Your task to perform on an android device: turn off priority inbox in the gmail app Image 0: 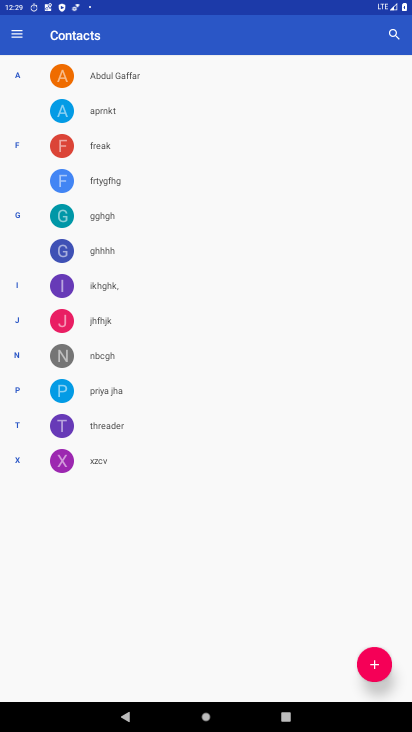
Step 0: press home button
Your task to perform on an android device: turn off priority inbox in the gmail app Image 1: 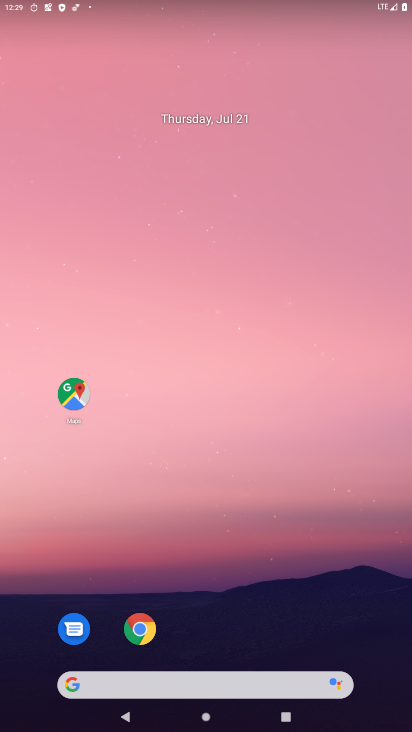
Step 1: drag from (174, 685) to (139, 166)
Your task to perform on an android device: turn off priority inbox in the gmail app Image 2: 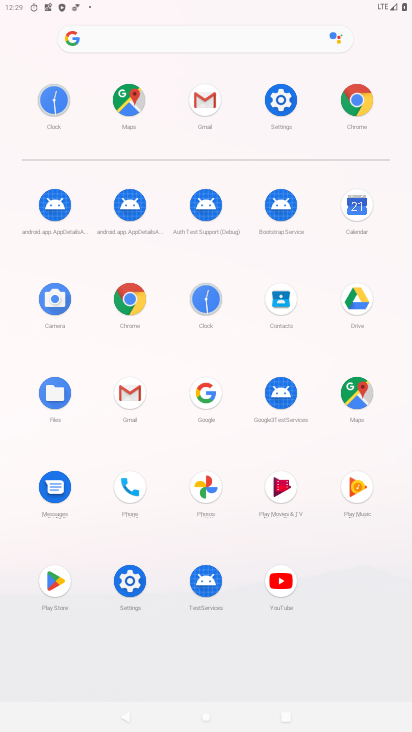
Step 2: click (140, 389)
Your task to perform on an android device: turn off priority inbox in the gmail app Image 3: 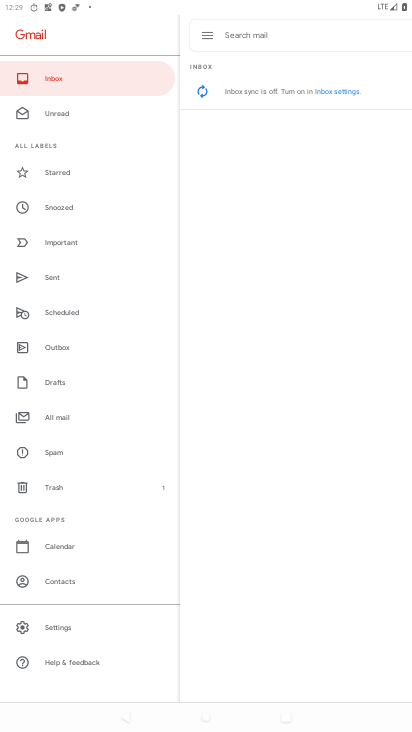
Step 3: click (43, 625)
Your task to perform on an android device: turn off priority inbox in the gmail app Image 4: 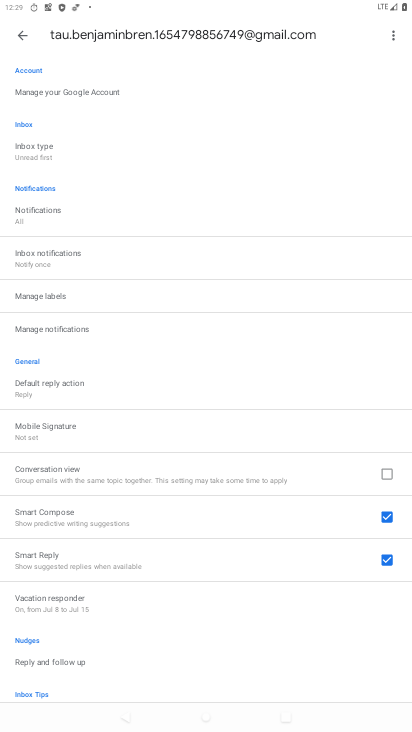
Step 4: click (43, 147)
Your task to perform on an android device: turn off priority inbox in the gmail app Image 5: 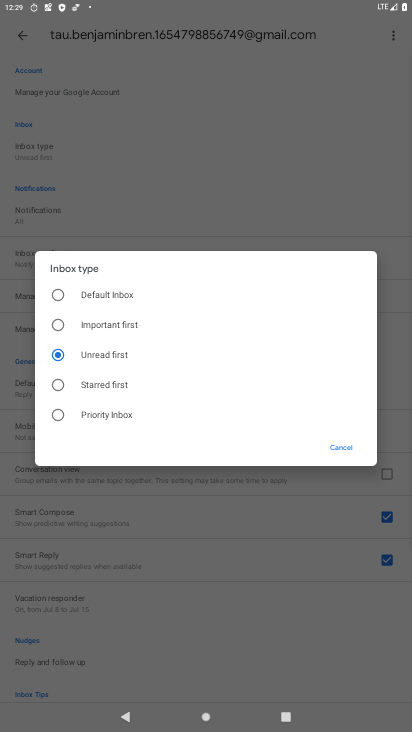
Step 5: click (67, 293)
Your task to perform on an android device: turn off priority inbox in the gmail app Image 6: 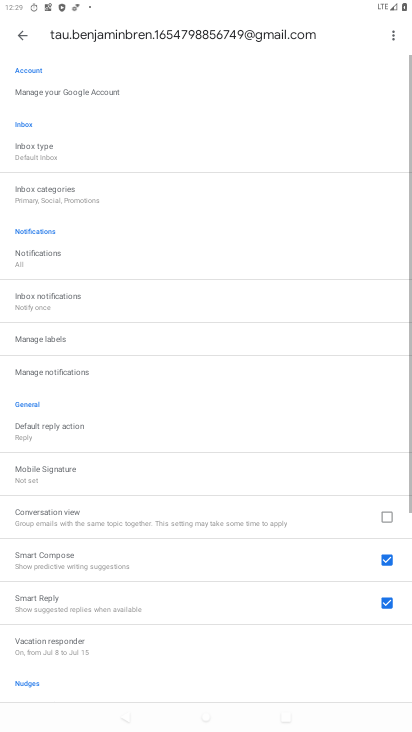
Step 6: task complete